Your task to perform on an android device: change the clock display to show seconds Image 0: 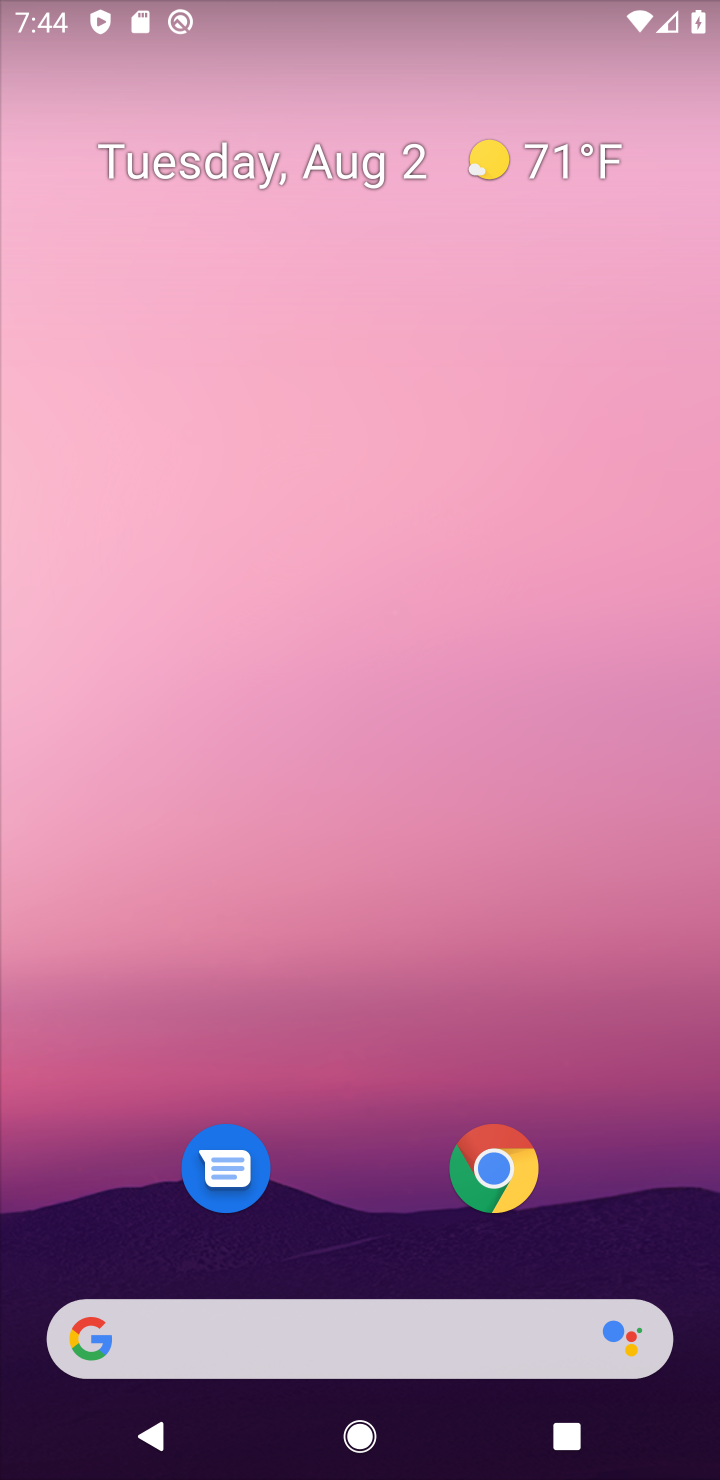
Step 0: drag from (607, 1115) to (665, 7)
Your task to perform on an android device: change the clock display to show seconds Image 1: 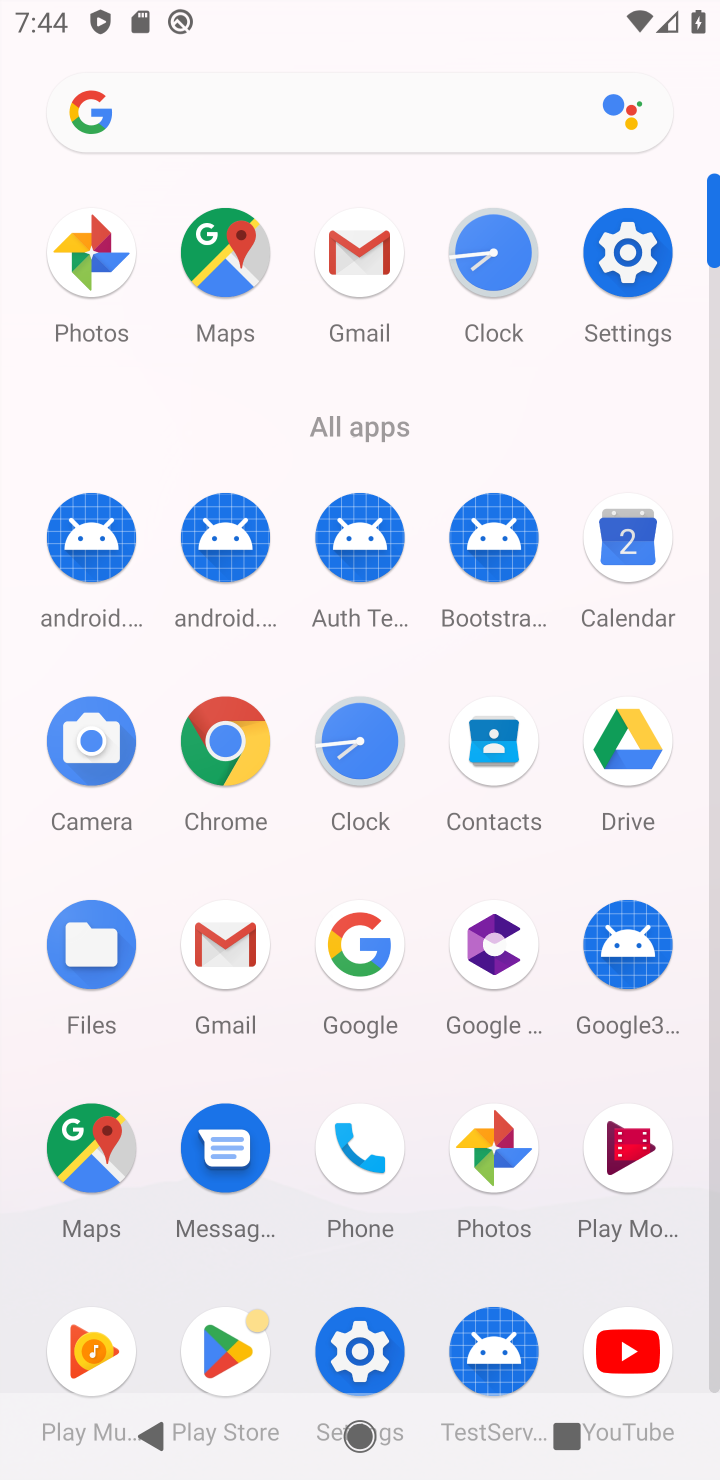
Step 1: click (500, 271)
Your task to perform on an android device: change the clock display to show seconds Image 2: 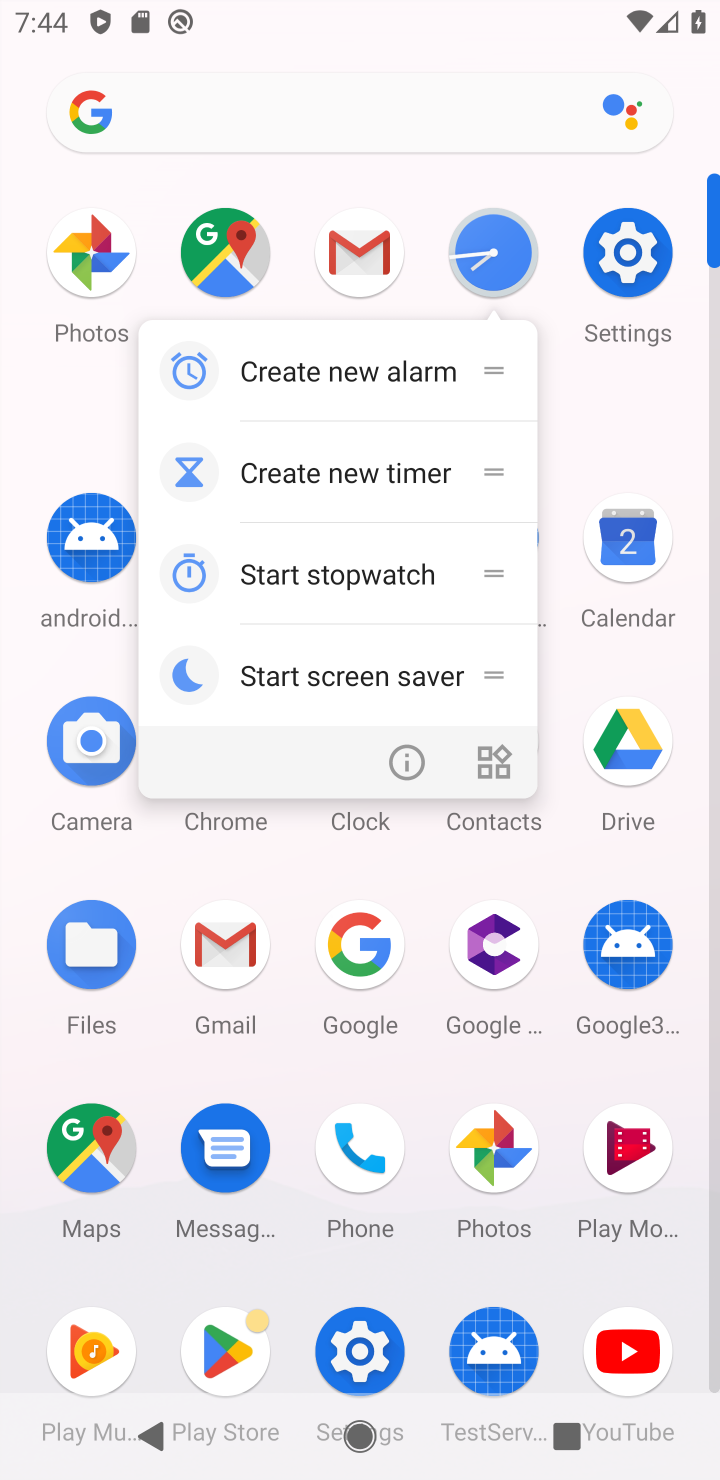
Step 2: click (507, 266)
Your task to perform on an android device: change the clock display to show seconds Image 3: 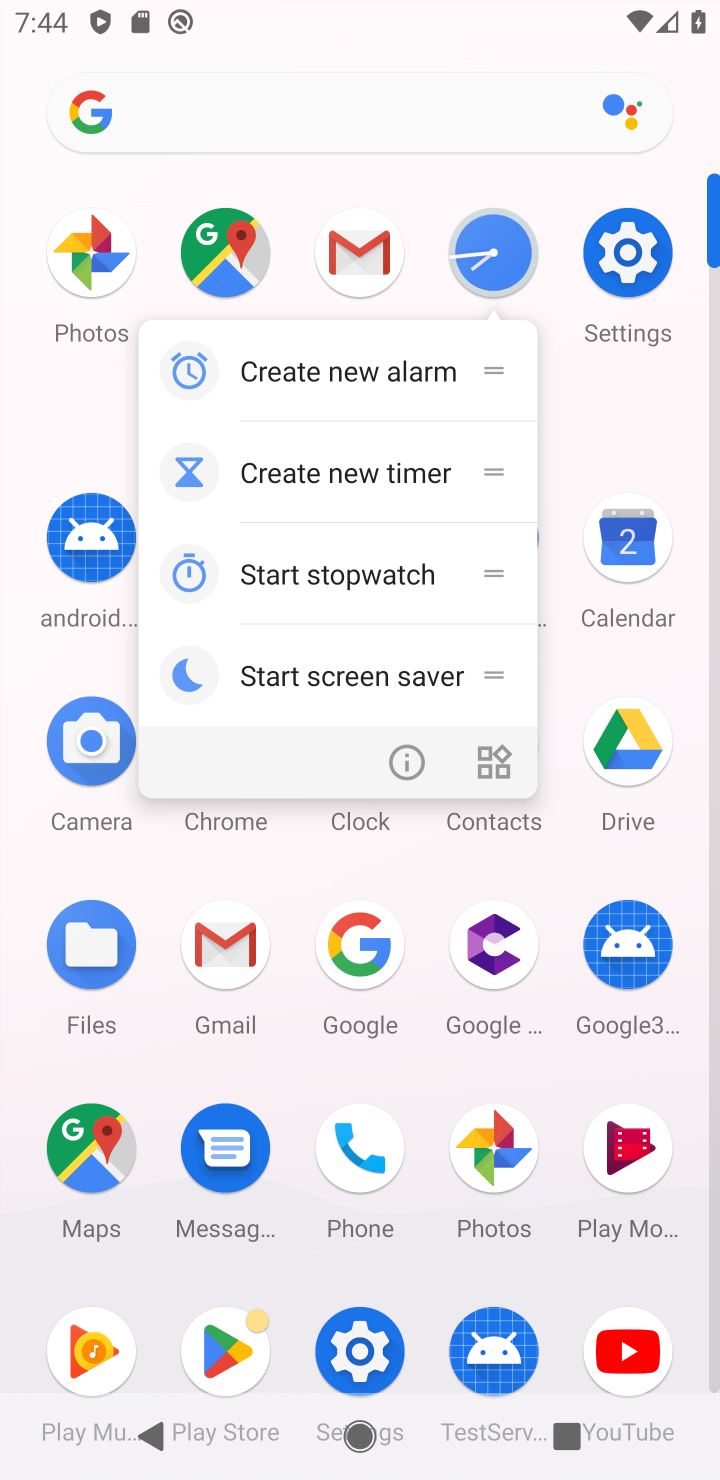
Step 3: click (507, 264)
Your task to perform on an android device: change the clock display to show seconds Image 4: 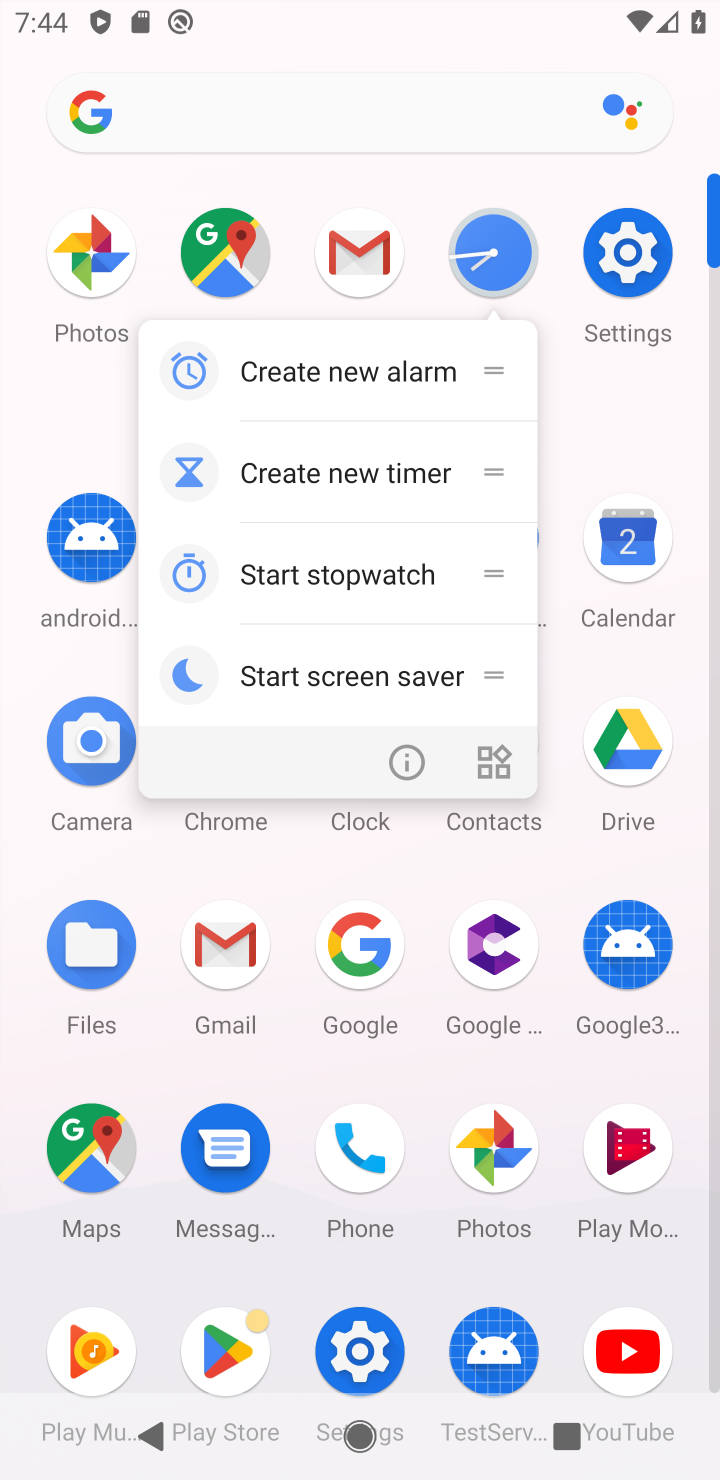
Step 4: click (478, 279)
Your task to perform on an android device: change the clock display to show seconds Image 5: 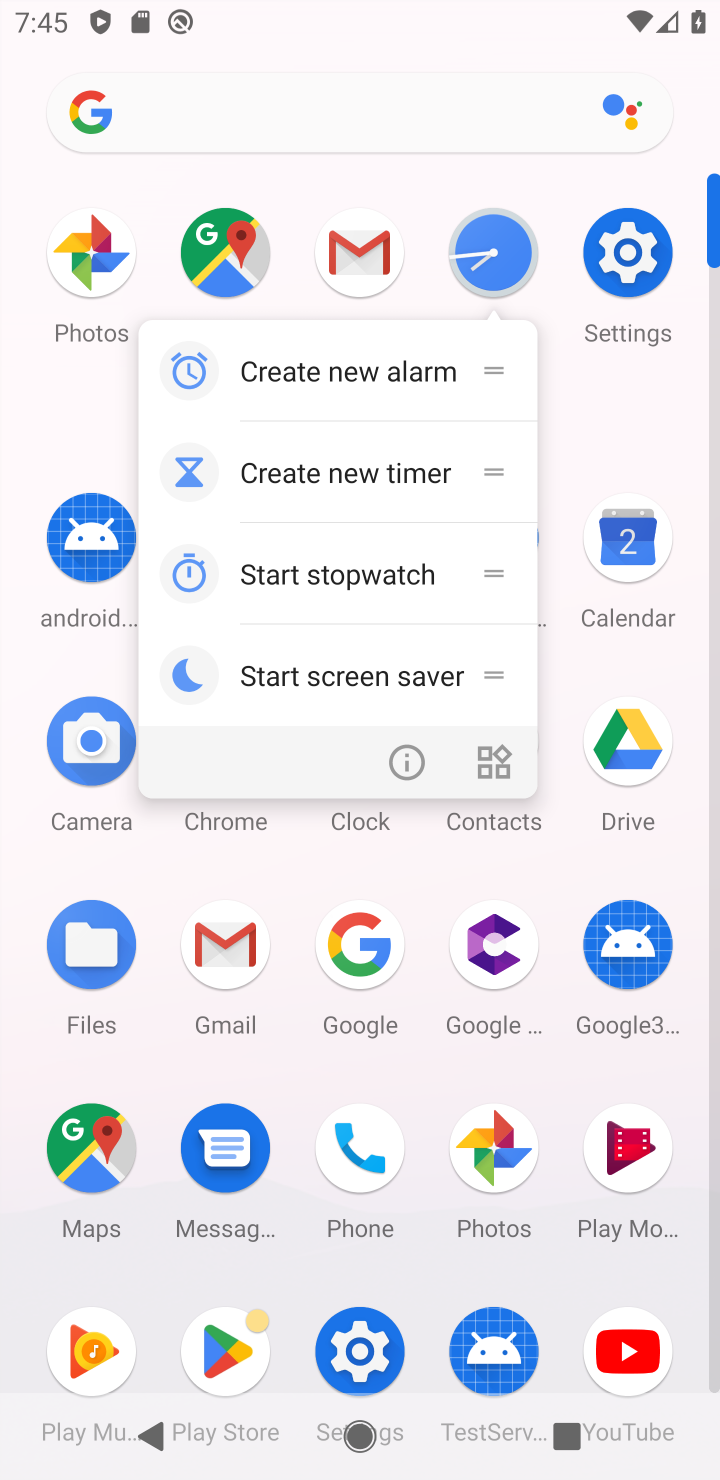
Step 5: click (490, 265)
Your task to perform on an android device: change the clock display to show seconds Image 6: 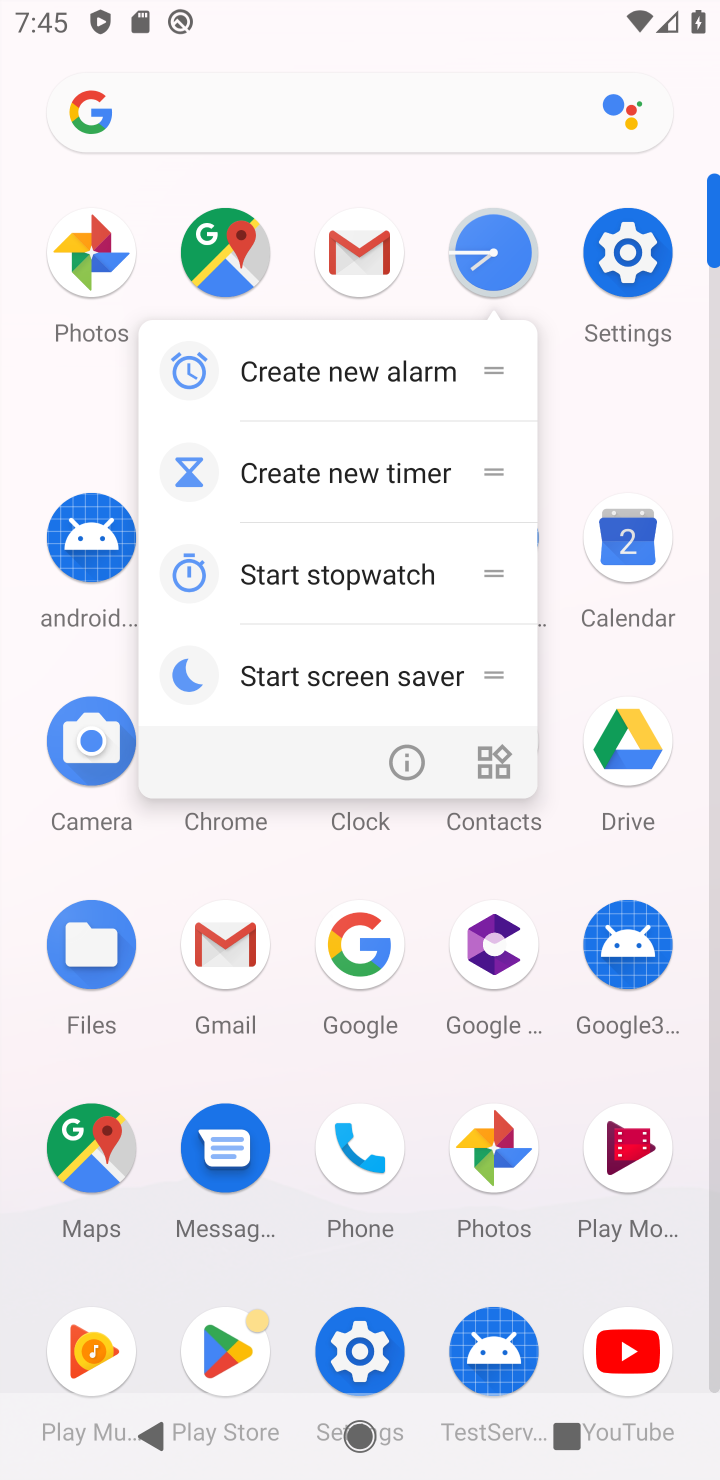
Step 6: click (490, 262)
Your task to perform on an android device: change the clock display to show seconds Image 7: 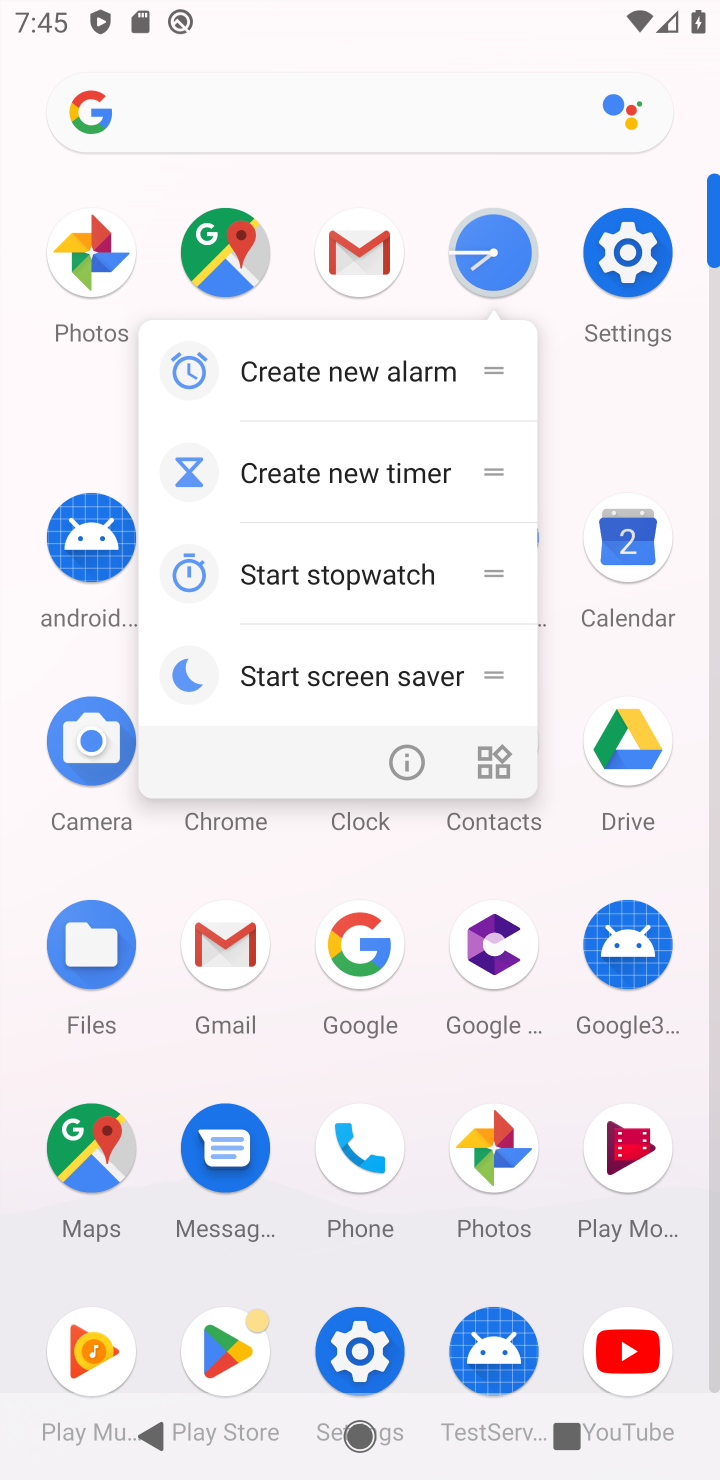
Step 7: click (488, 246)
Your task to perform on an android device: change the clock display to show seconds Image 8: 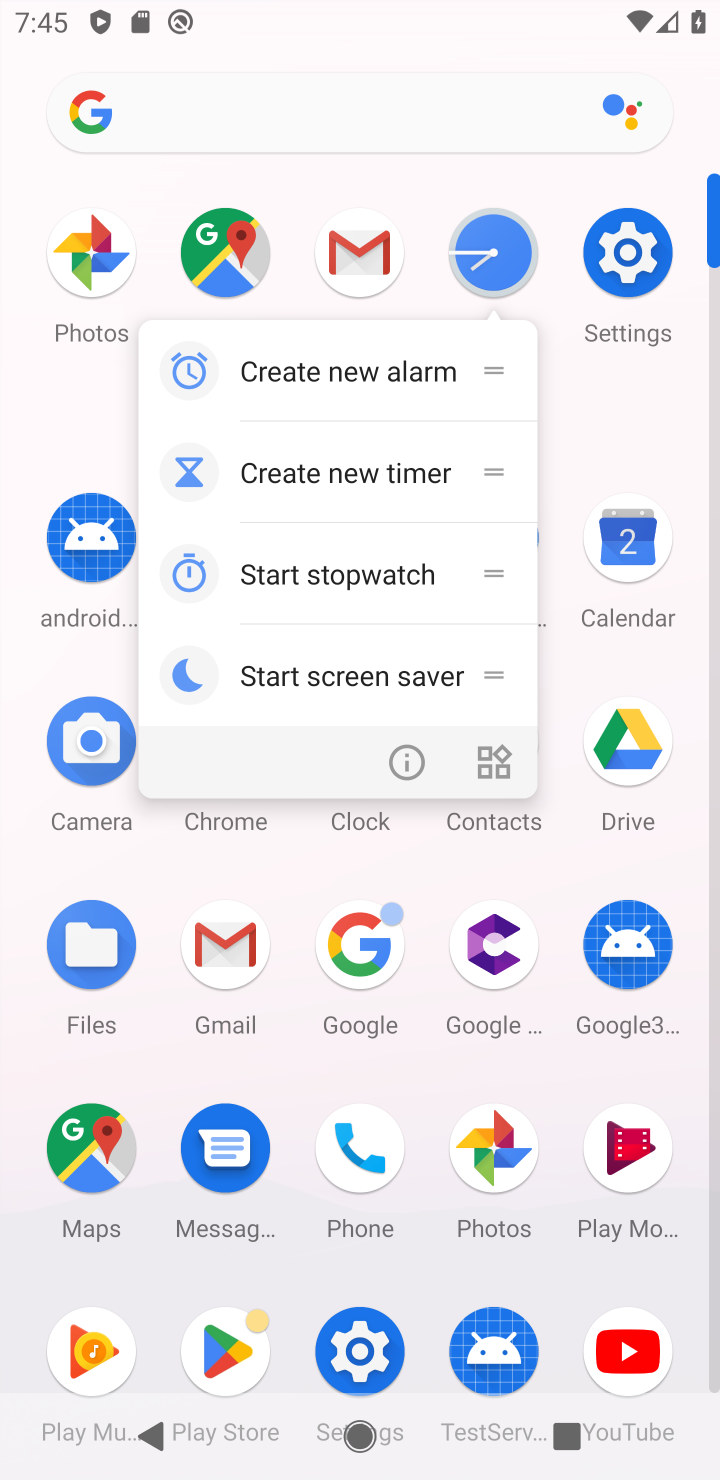
Step 8: click (487, 248)
Your task to perform on an android device: change the clock display to show seconds Image 9: 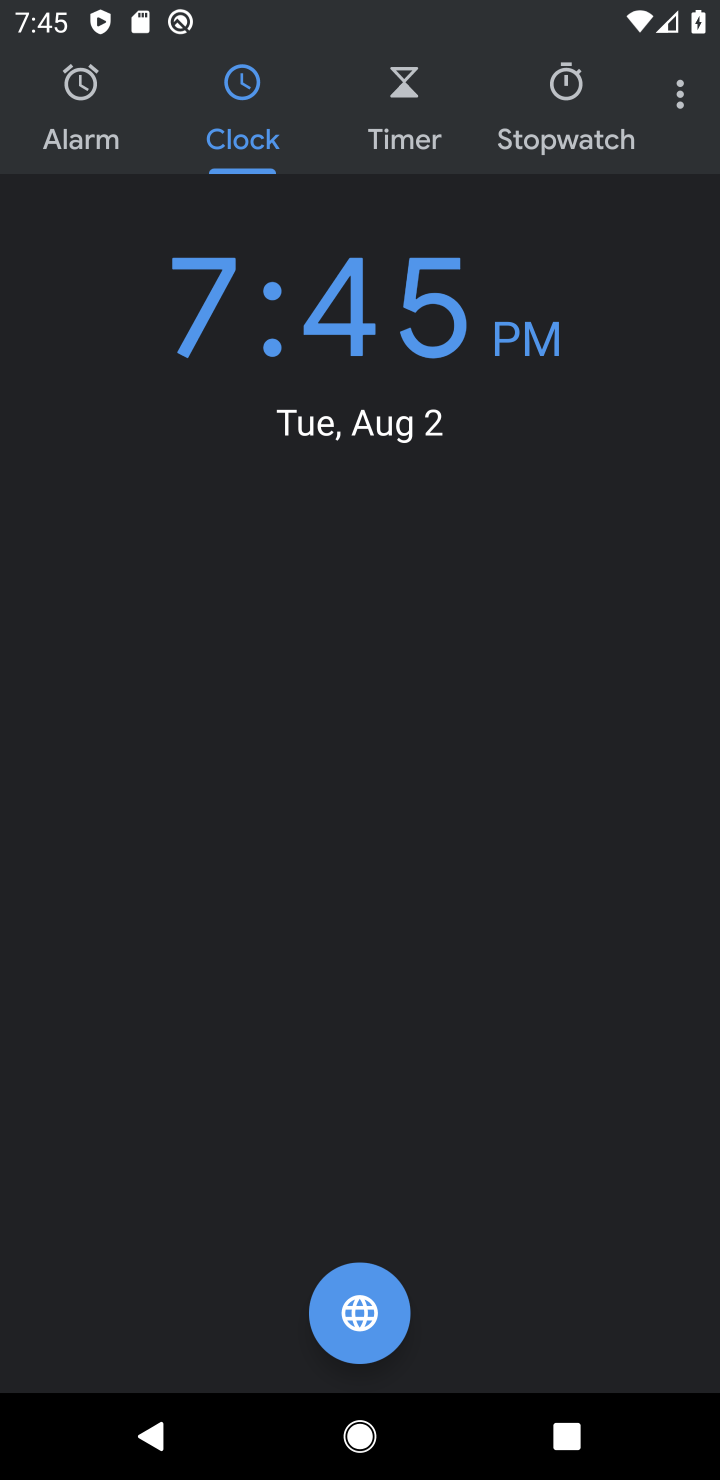
Step 9: click (685, 77)
Your task to perform on an android device: change the clock display to show seconds Image 10: 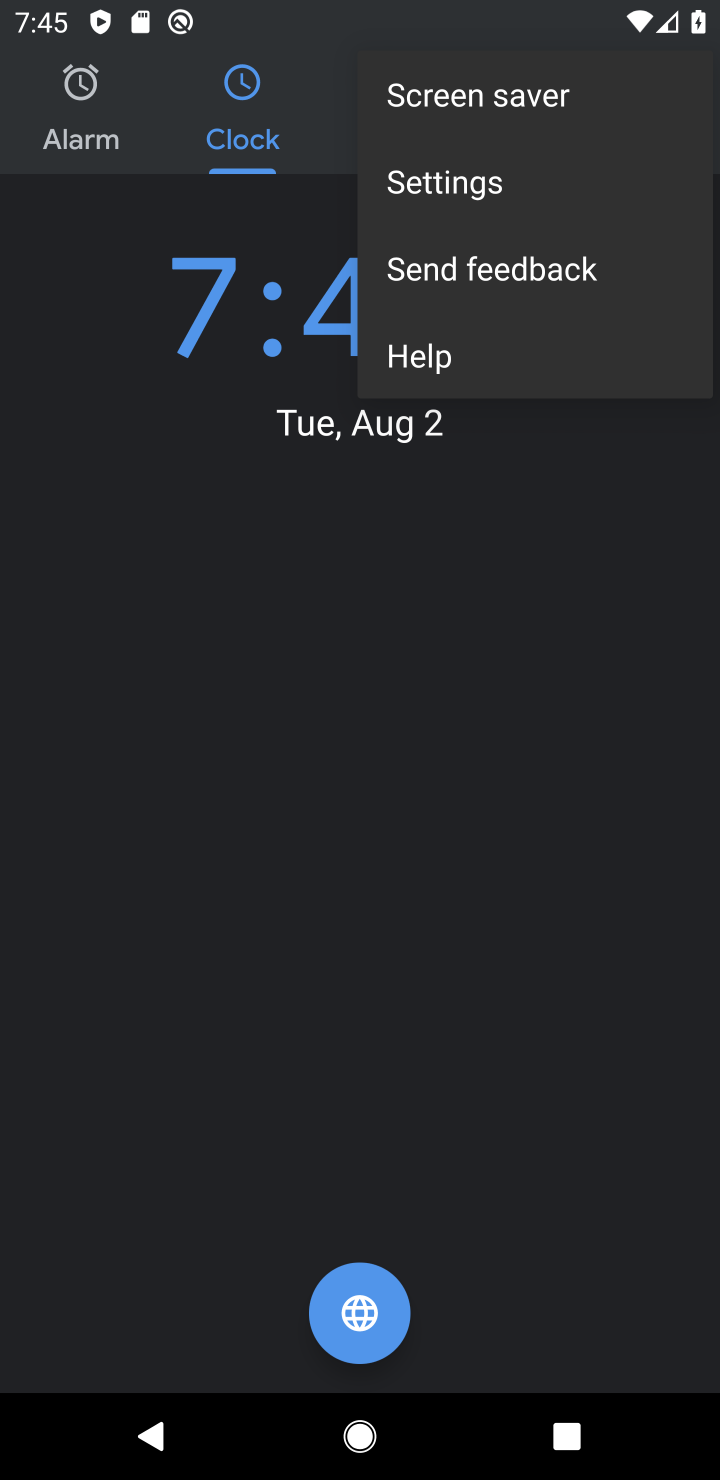
Step 10: click (492, 185)
Your task to perform on an android device: change the clock display to show seconds Image 11: 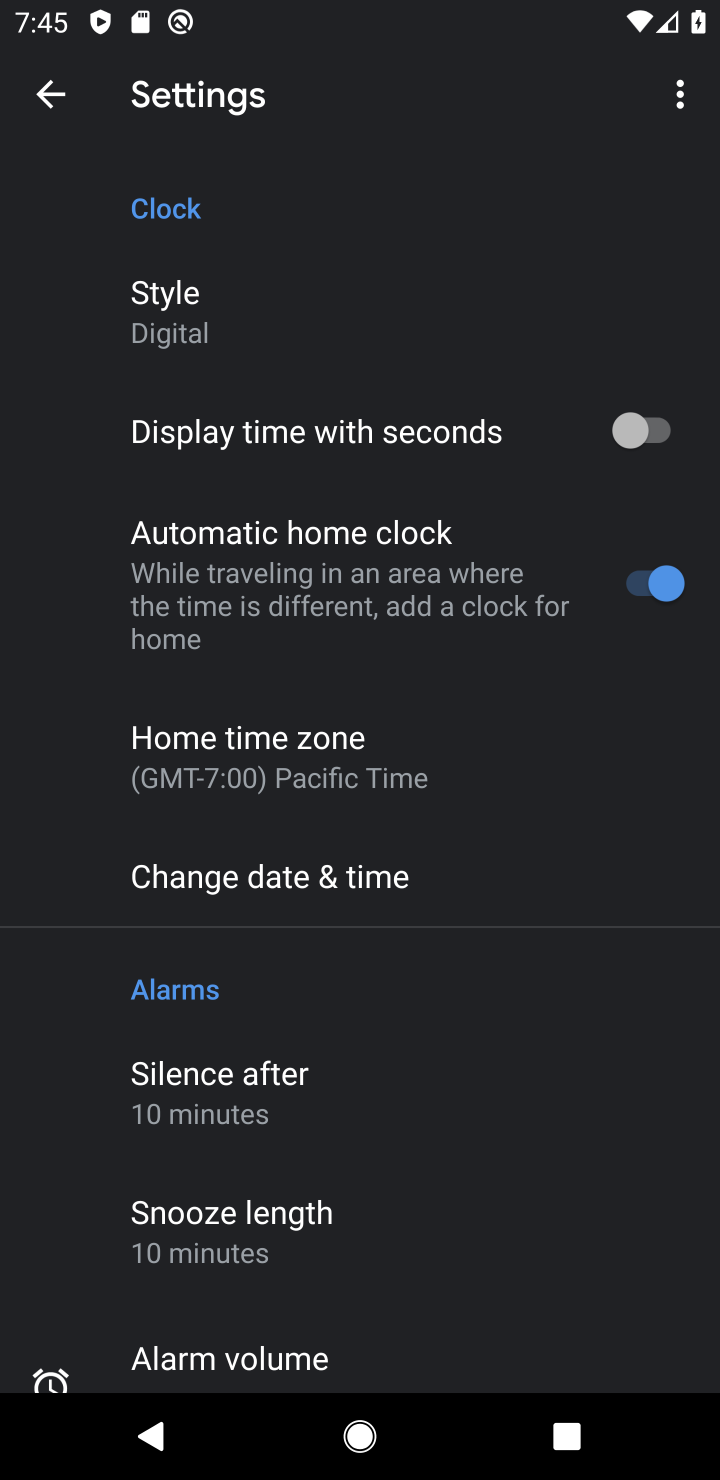
Step 11: click (600, 417)
Your task to perform on an android device: change the clock display to show seconds Image 12: 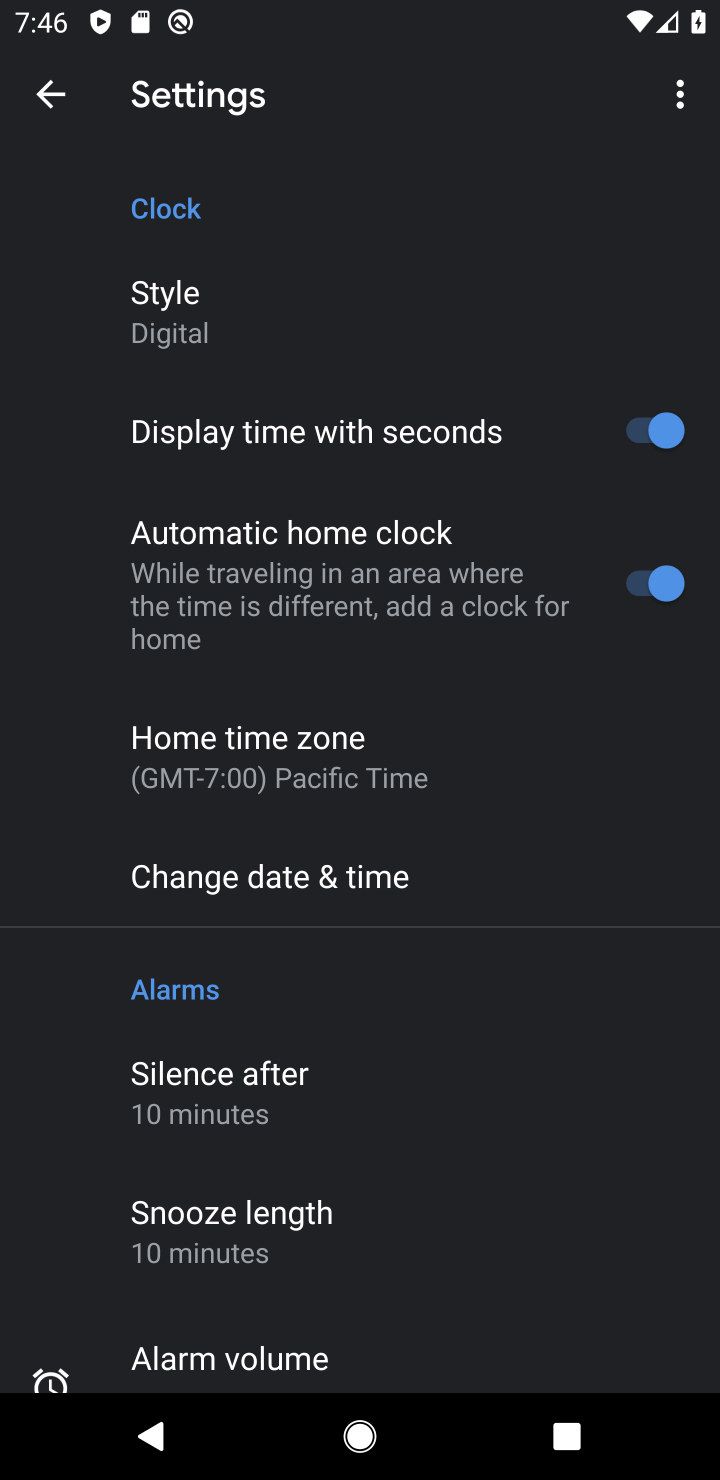
Step 12: task complete